Your task to perform on an android device: Open Yahoo.com Image 0: 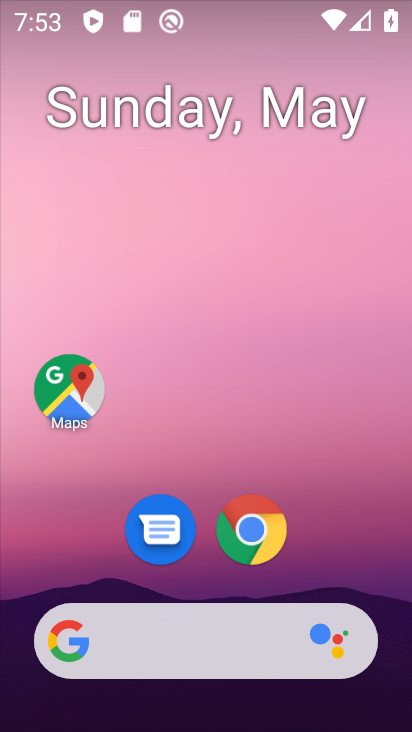
Step 0: click (238, 624)
Your task to perform on an android device: Open Yahoo.com Image 1: 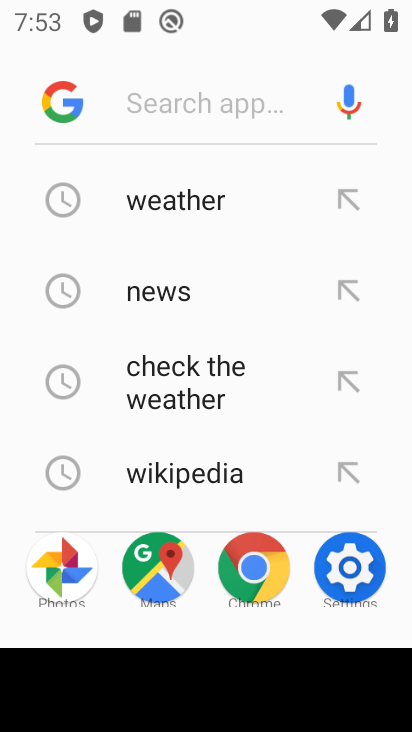
Step 1: type "yahoo.com"
Your task to perform on an android device: Open Yahoo.com Image 2: 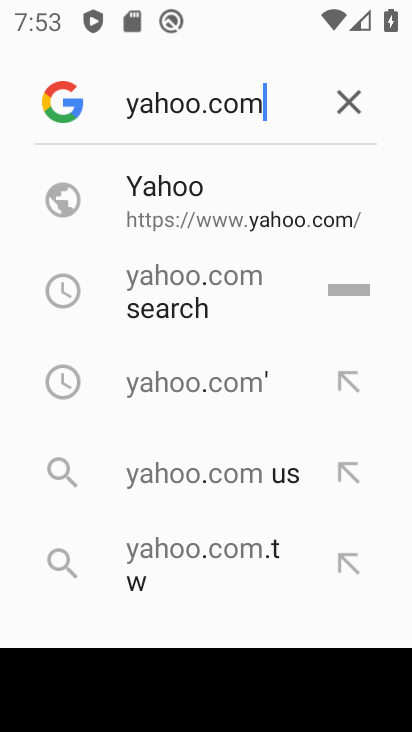
Step 2: click (167, 198)
Your task to perform on an android device: Open Yahoo.com Image 3: 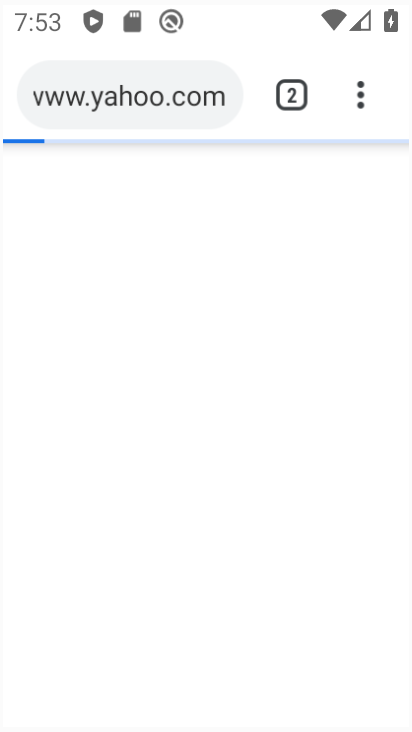
Step 3: task complete